Your task to perform on an android device: move a message to another label in the gmail app Image 0: 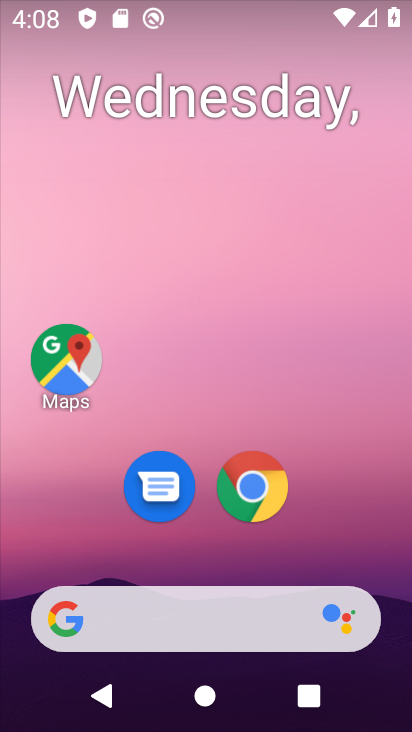
Step 0: press home button
Your task to perform on an android device: move a message to another label in the gmail app Image 1: 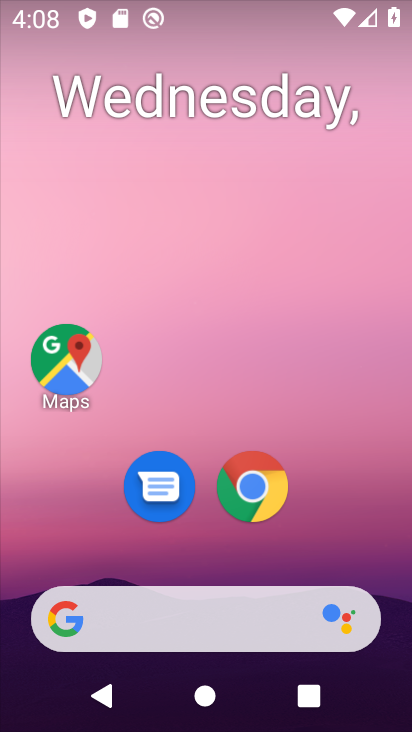
Step 1: drag from (220, 504) to (221, 7)
Your task to perform on an android device: move a message to another label in the gmail app Image 2: 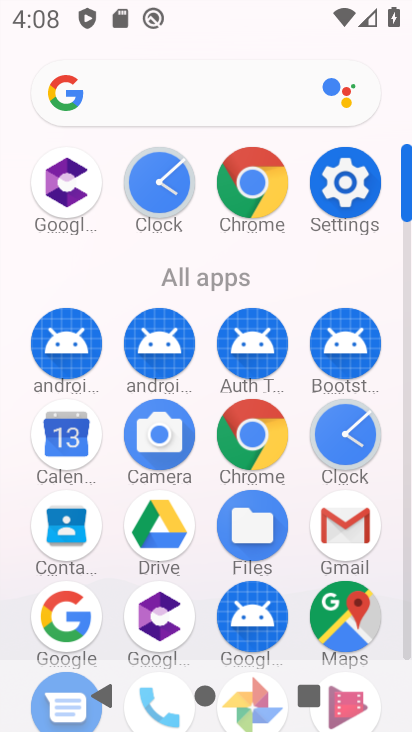
Step 2: click (351, 523)
Your task to perform on an android device: move a message to another label in the gmail app Image 3: 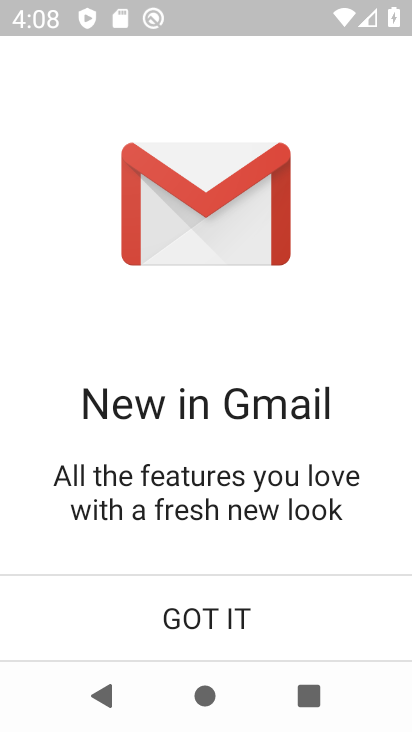
Step 3: click (243, 624)
Your task to perform on an android device: move a message to another label in the gmail app Image 4: 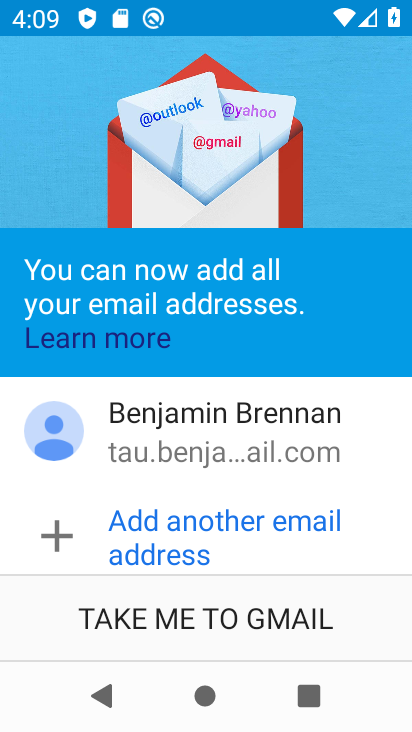
Step 4: click (344, 635)
Your task to perform on an android device: move a message to another label in the gmail app Image 5: 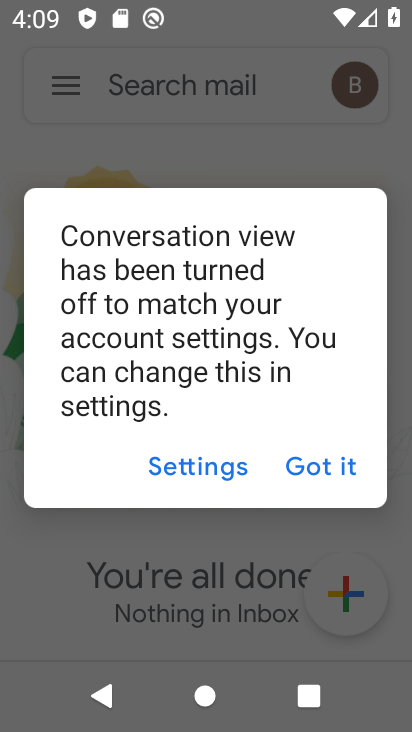
Step 5: click (348, 468)
Your task to perform on an android device: move a message to another label in the gmail app Image 6: 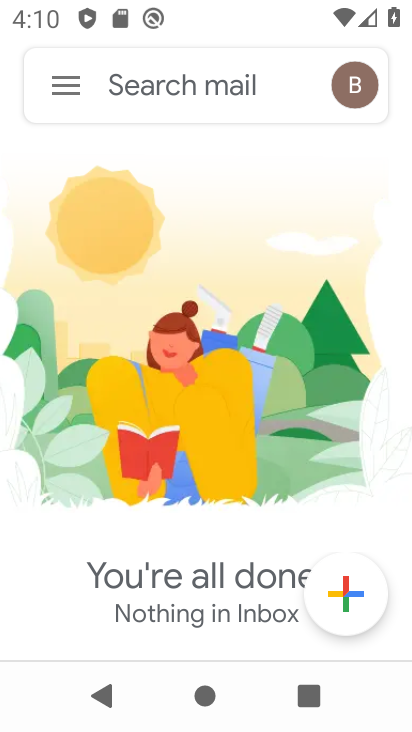
Step 6: click (67, 89)
Your task to perform on an android device: move a message to another label in the gmail app Image 7: 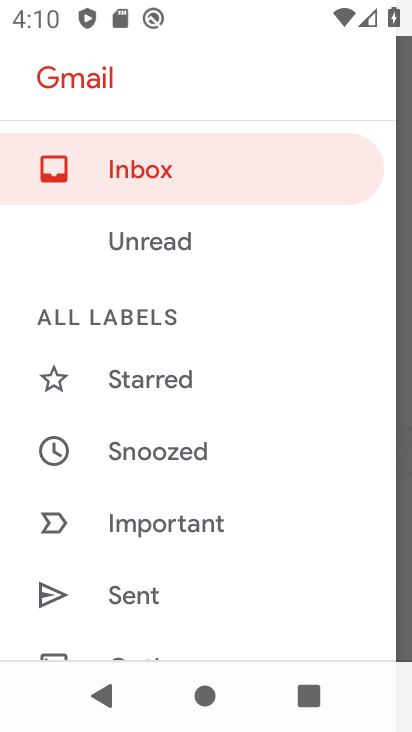
Step 7: drag from (157, 547) to (198, 260)
Your task to perform on an android device: move a message to another label in the gmail app Image 8: 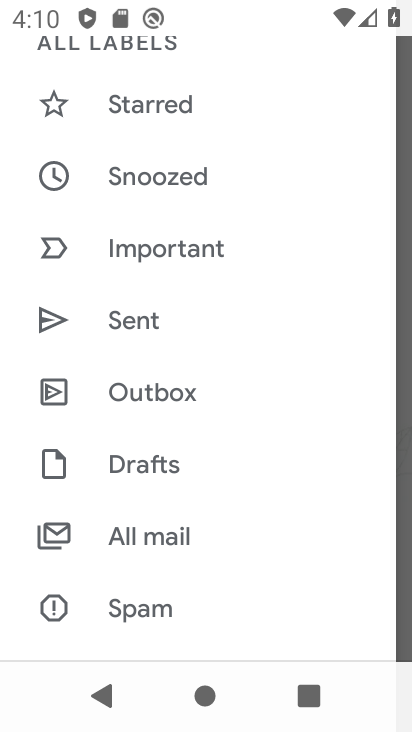
Step 8: click (133, 528)
Your task to perform on an android device: move a message to another label in the gmail app Image 9: 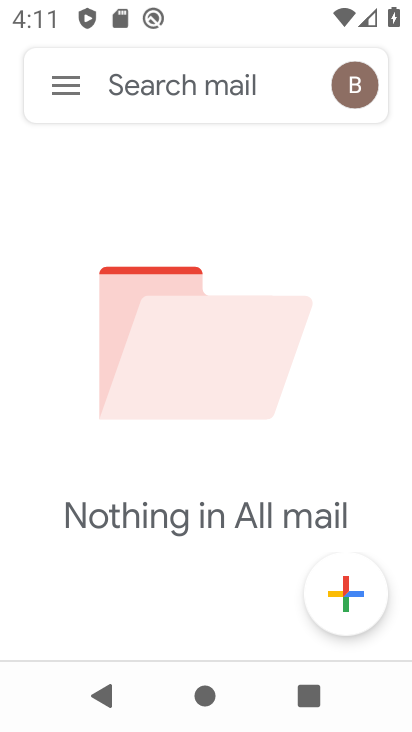
Step 9: task complete